Your task to perform on an android device: create a new album in the google photos Image 0: 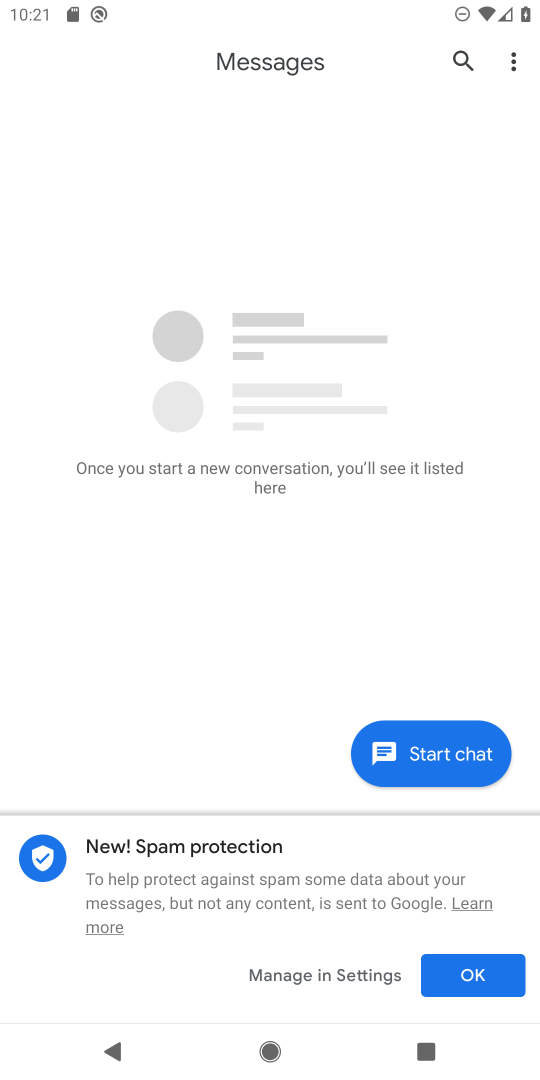
Step 0: press home button
Your task to perform on an android device: create a new album in the google photos Image 1: 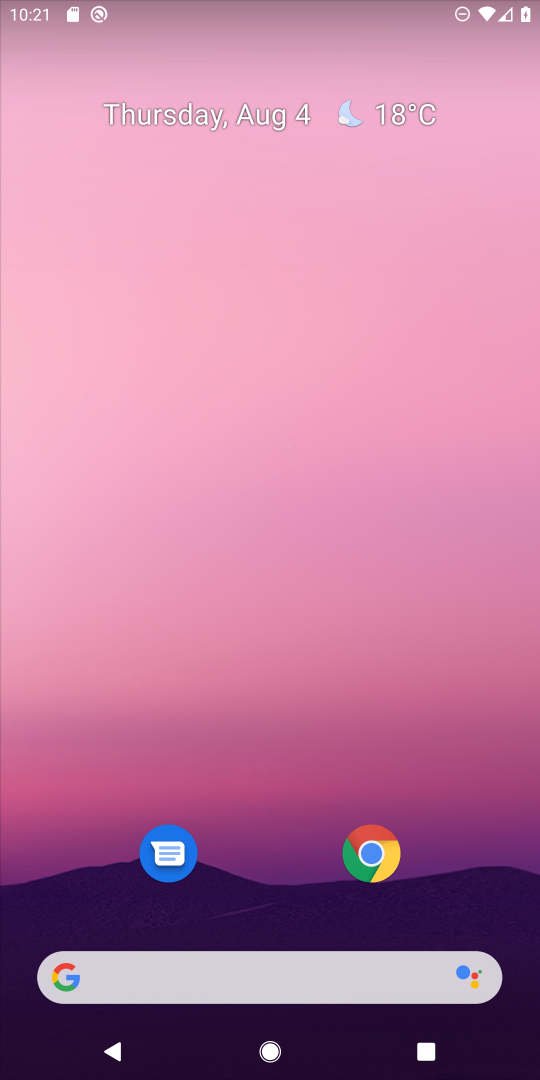
Step 1: drag from (264, 856) to (405, 2)
Your task to perform on an android device: create a new album in the google photos Image 2: 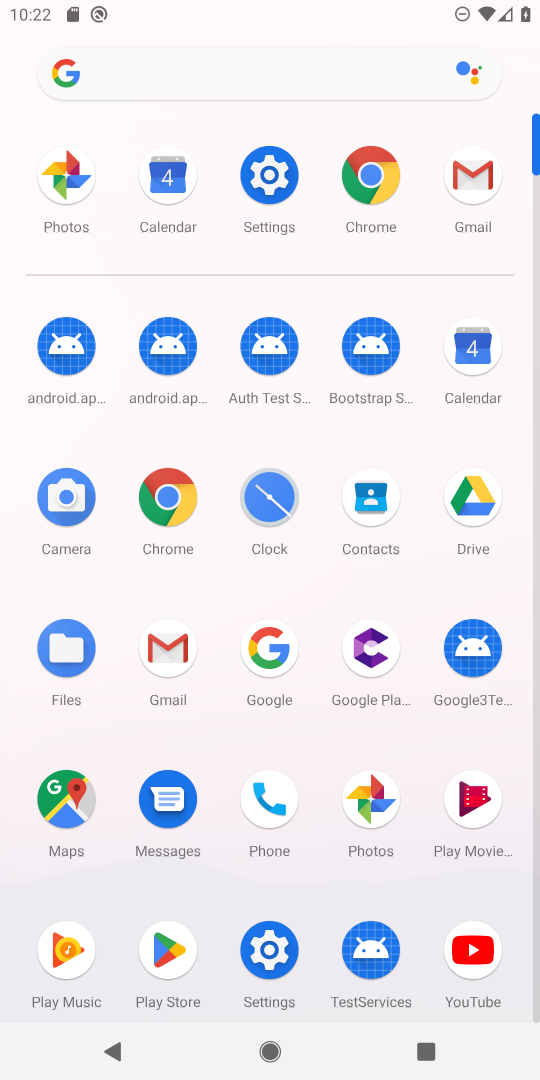
Step 2: click (376, 833)
Your task to perform on an android device: create a new album in the google photos Image 3: 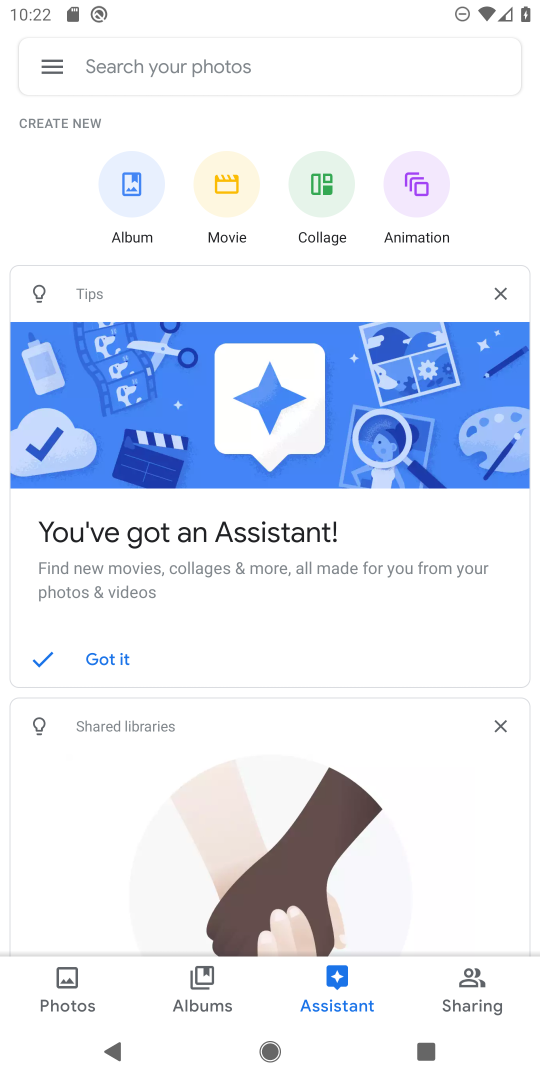
Step 3: click (214, 969)
Your task to perform on an android device: create a new album in the google photos Image 4: 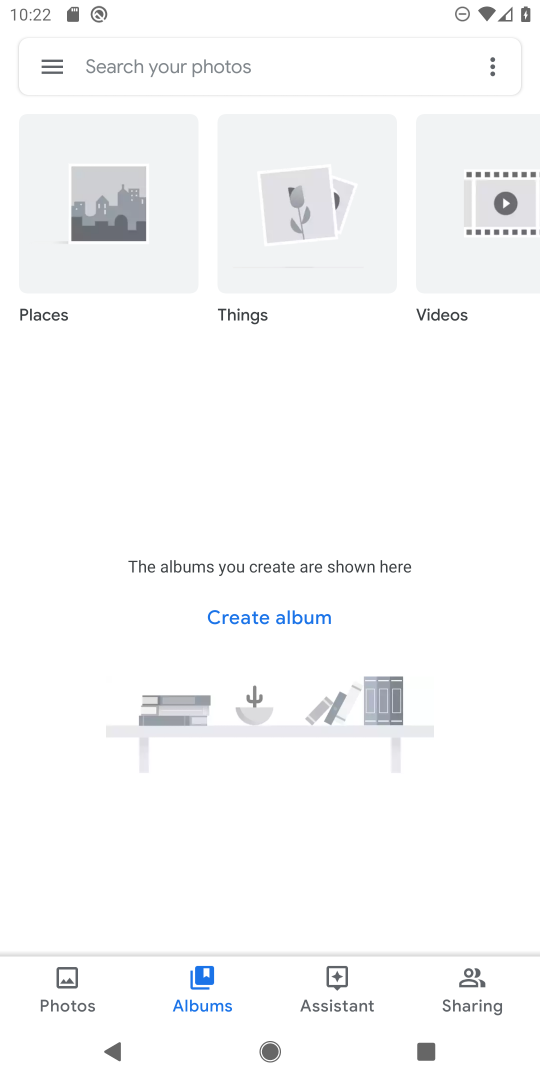
Step 4: click (261, 608)
Your task to perform on an android device: create a new album in the google photos Image 5: 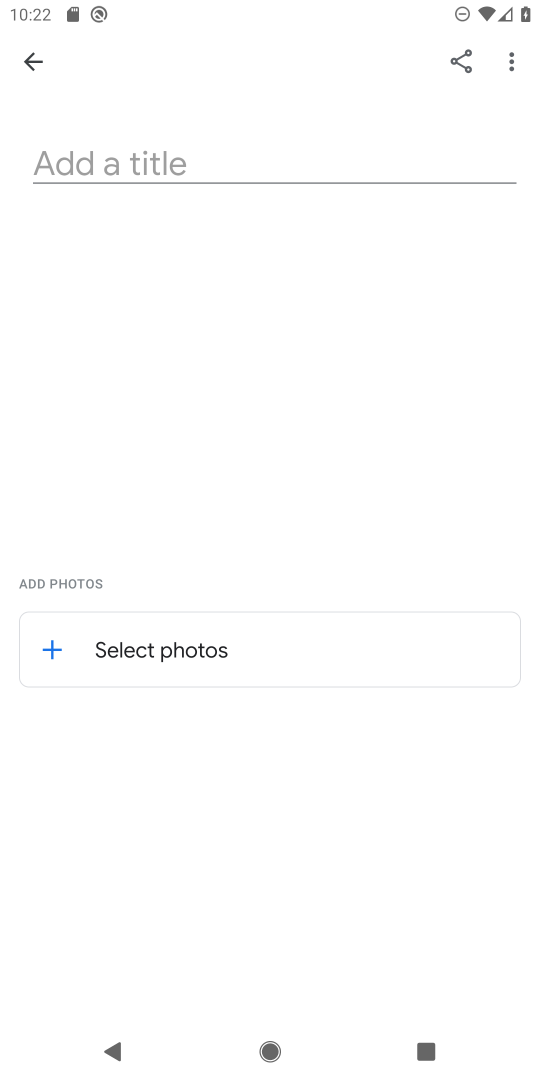
Step 5: click (47, 648)
Your task to perform on an android device: create a new album in the google photos Image 6: 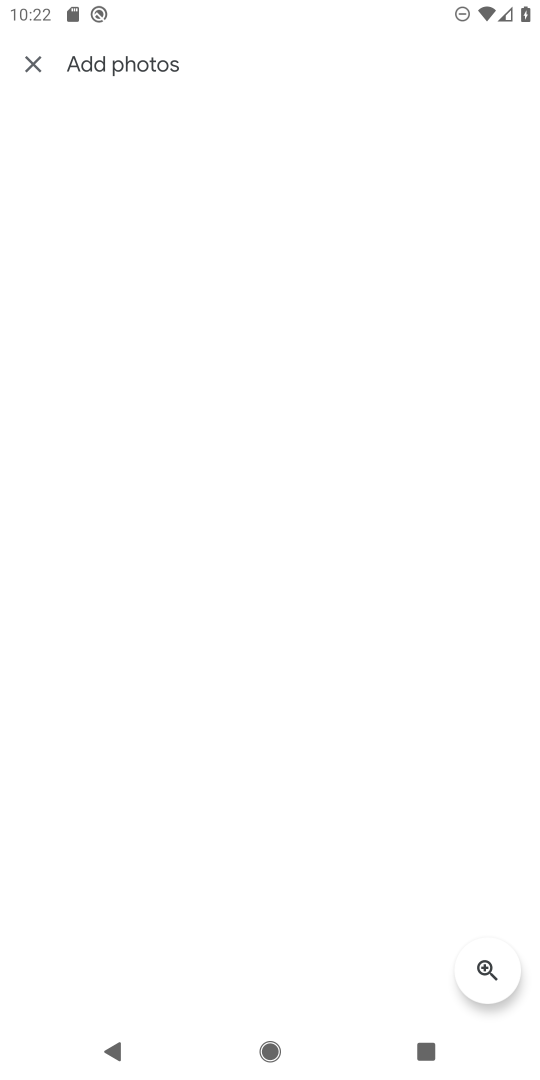
Step 6: click (243, 389)
Your task to perform on an android device: create a new album in the google photos Image 7: 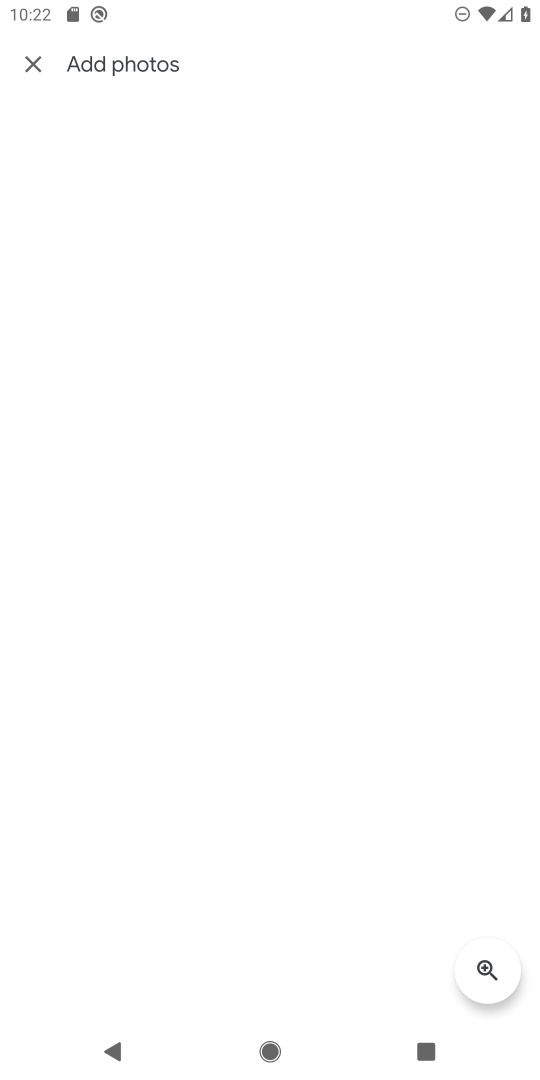
Step 7: task complete